Your task to perform on an android device: turn on javascript in the chrome app Image 0: 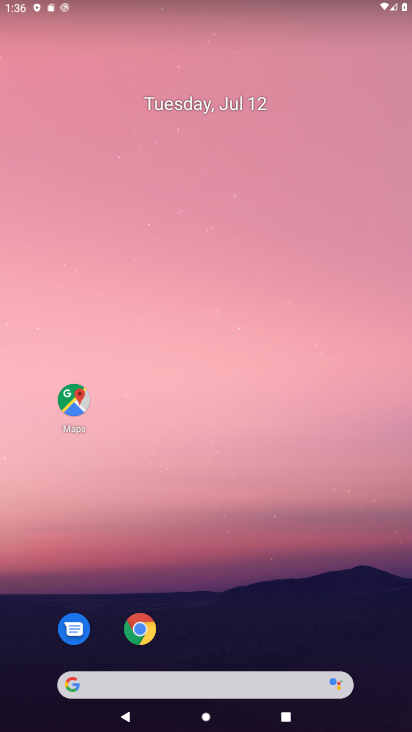
Step 0: click (137, 630)
Your task to perform on an android device: turn on javascript in the chrome app Image 1: 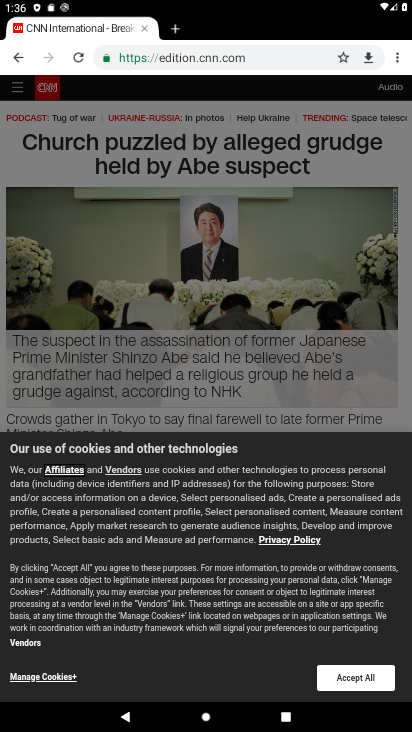
Step 1: click (399, 63)
Your task to perform on an android device: turn on javascript in the chrome app Image 2: 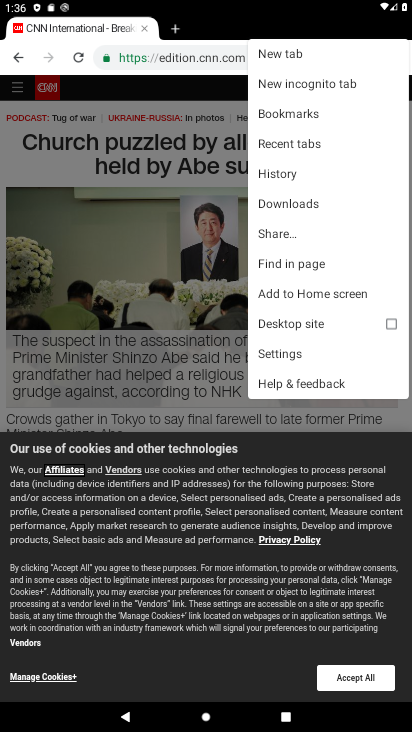
Step 2: click (329, 351)
Your task to perform on an android device: turn on javascript in the chrome app Image 3: 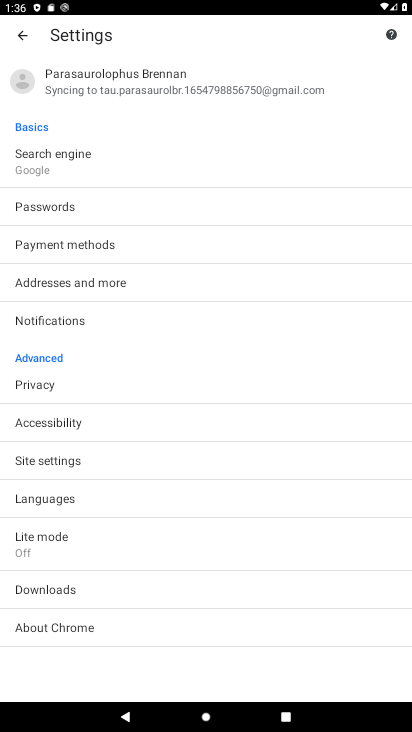
Step 3: click (91, 460)
Your task to perform on an android device: turn on javascript in the chrome app Image 4: 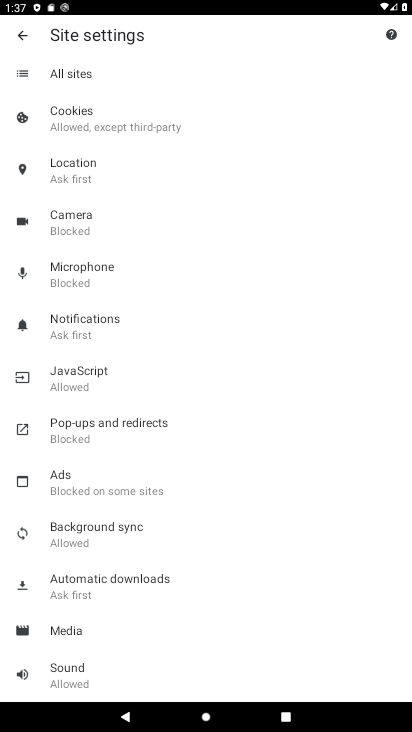
Step 4: click (111, 378)
Your task to perform on an android device: turn on javascript in the chrome app Image 5: 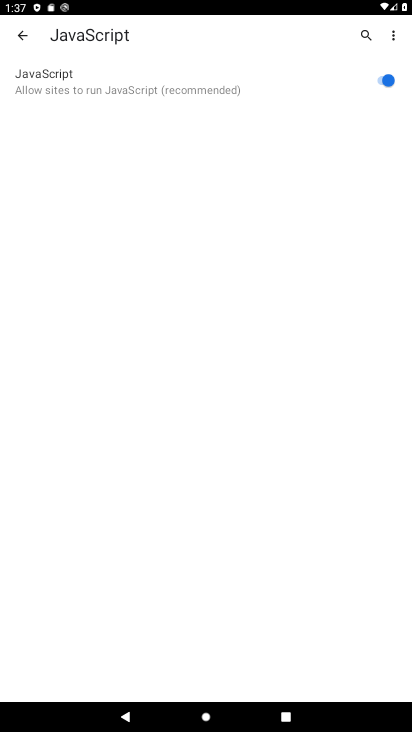
Step 5: task complete